Your task to perform on an android device: change the clock display to digital Image 0: 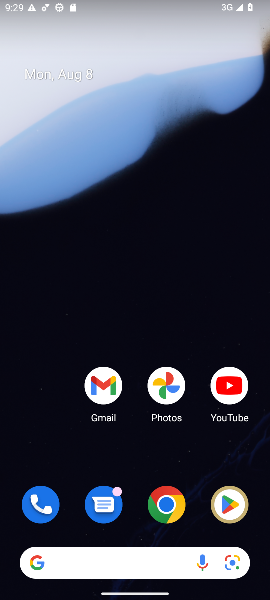
Step 0: drag from (82, 467) to (119, 143)
Your task to perform on an android device: change the clock display to digital Image 1: 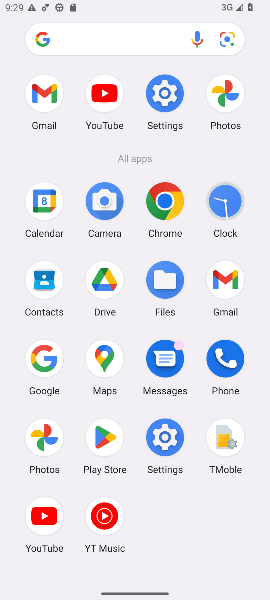
Step 1: click (233, 203)
Your task to perform on an android device: change the clock display to digital Image 2: 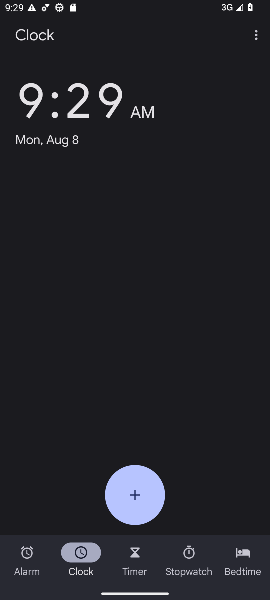
Step 2: click (259, 40)
Your task to perform on an android device: change the clock display to digital Image 3: 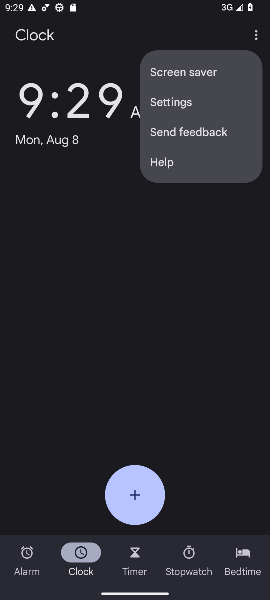
Step 3: click (193, 102)
Your task to perform on an android device: change the clock display to digital Image 4: 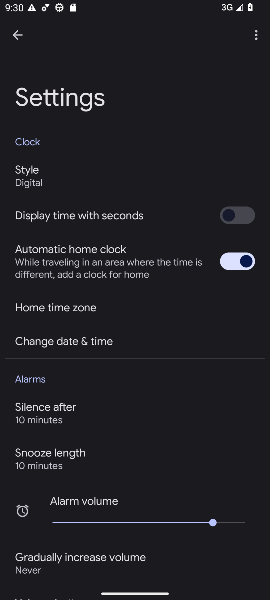
Step 4: click (52, 178)
Your task to perform on an android device: change the clock display to digital Image 5: 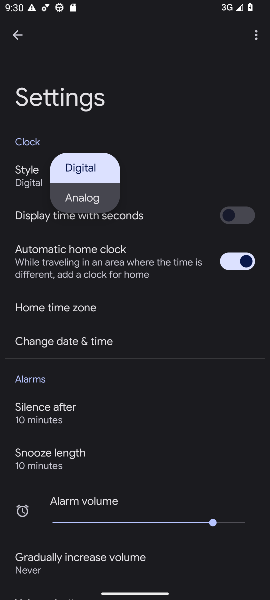
Step 5: task complete